Your task to perform on an android device: find photos in the google photos app Image 0: 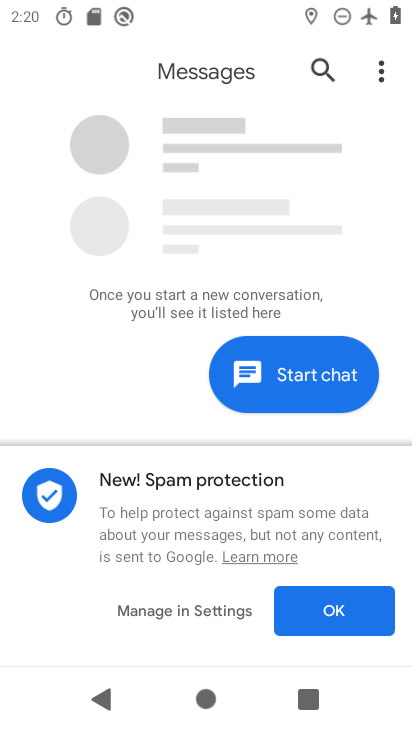
Step 0: press home button
Your task to perform on an android device: find photos in the google photos app Image 1: 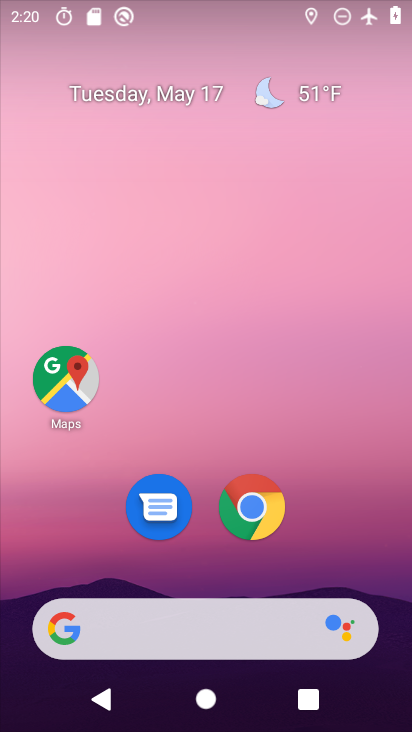
Step 1: drag from (194, 556) to (245, 127)
Your task to perform on an android device: find photos in the google photos app Image 2: 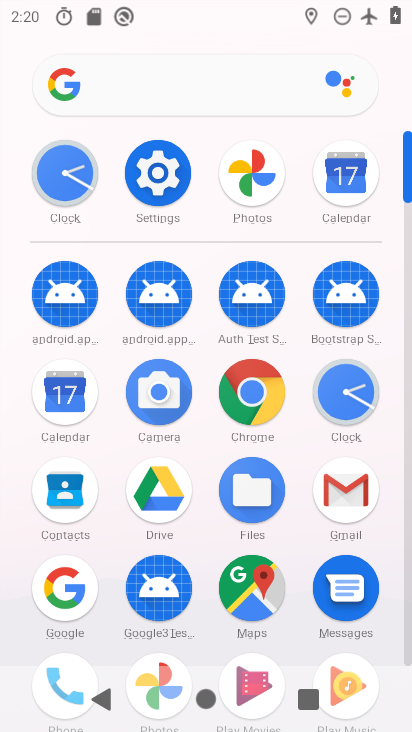
Step 2: click (245, 164)
Your task to perform on an android device: find photos in the google photos app Image 3: 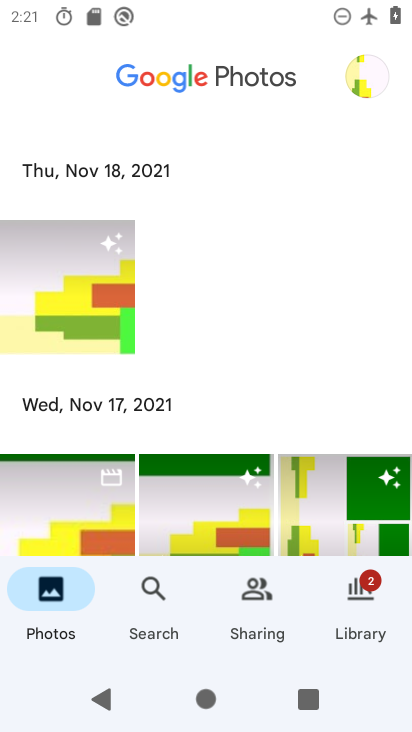
Step 3: task complete